Your task to perform on an android device: Go to display settings Image 0: 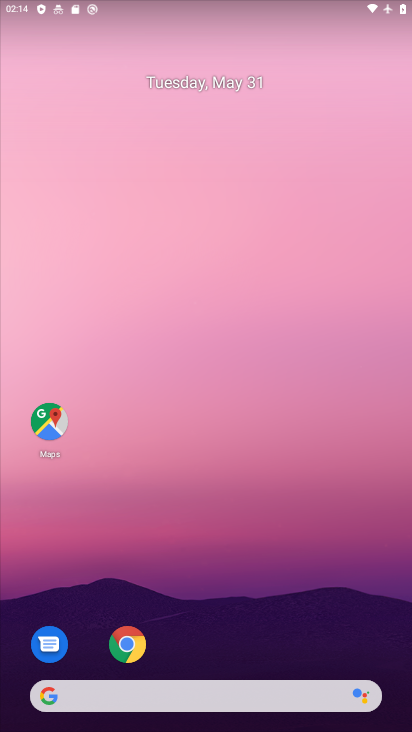
Step 0: drag from (278, 606) to (278, 127)
Your task to perform on an android device: Go to display settings Image 1: 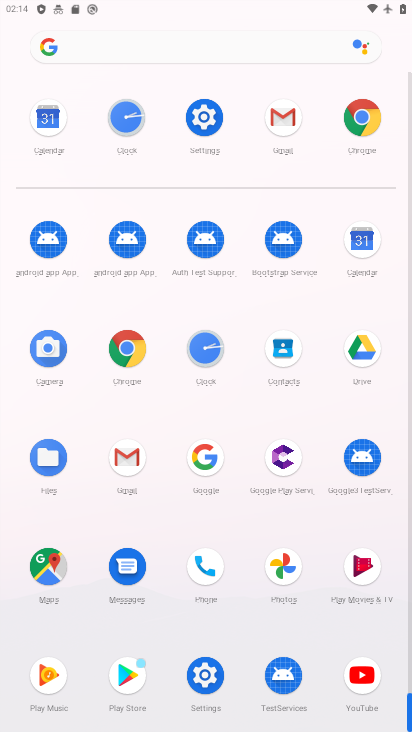
Step 1: click (203, 156)
Your task to perform on an android device: Go to display settings Image 2: 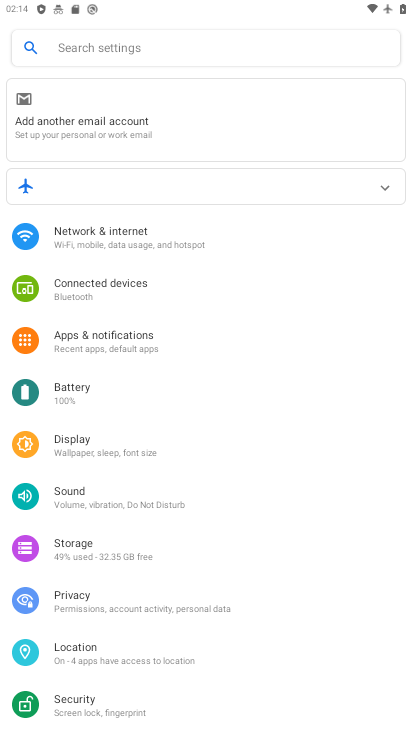
Step 2: click (108, 442)
Your task to perform on an android device: Go to display settings Image 3: 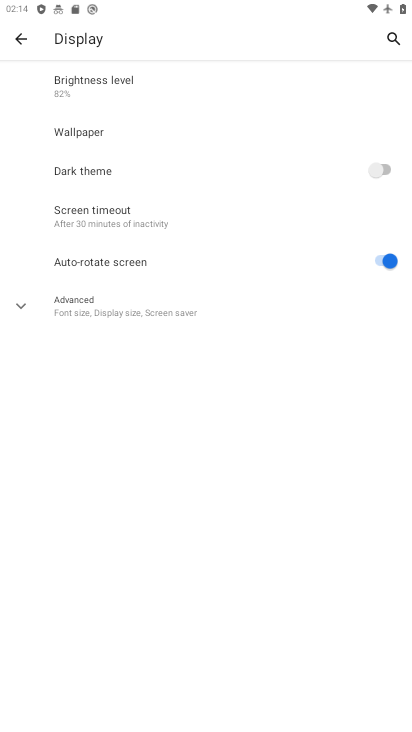
Step 3: task complete